Your task to perform on an android device: What's the speed of light? Image 0: 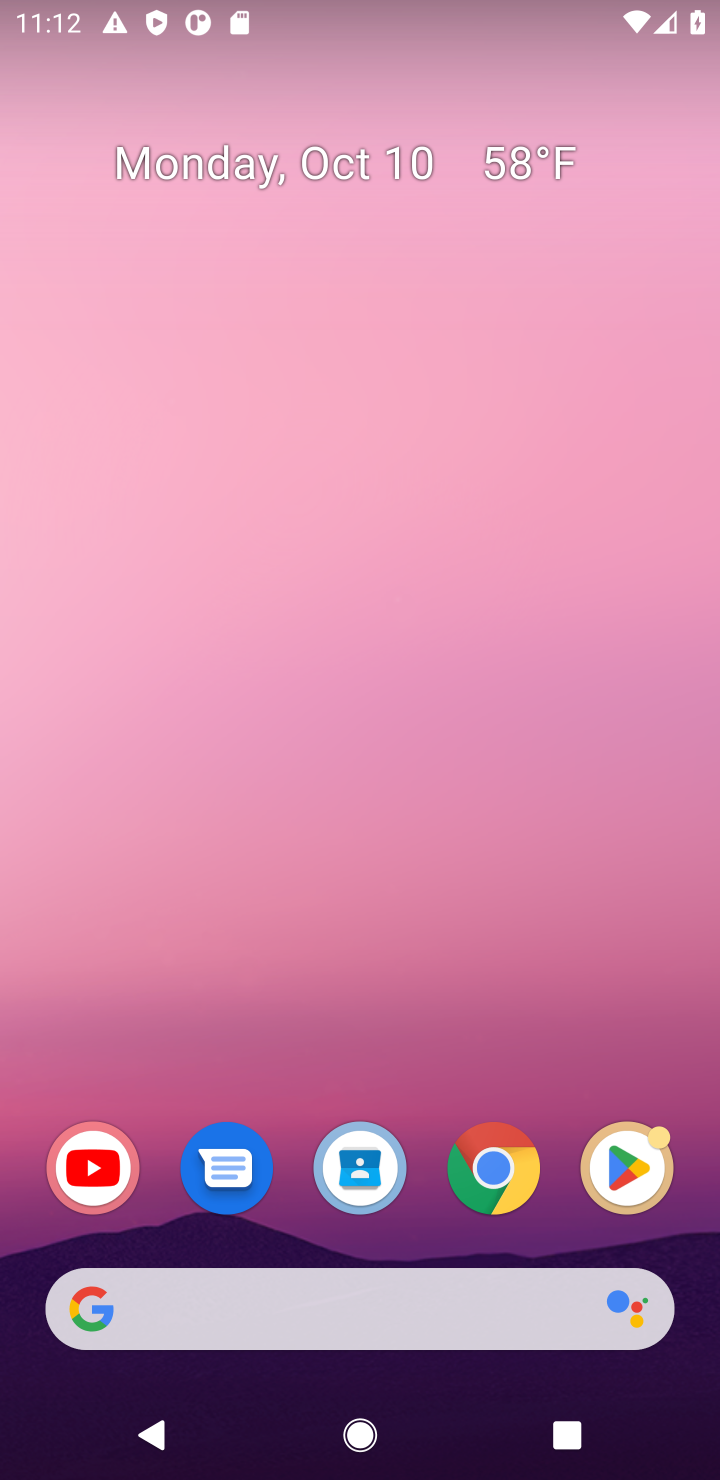
Step 0: click (358, 1296)
Your task to perform on an android device: What's the speed of light? Image 1: 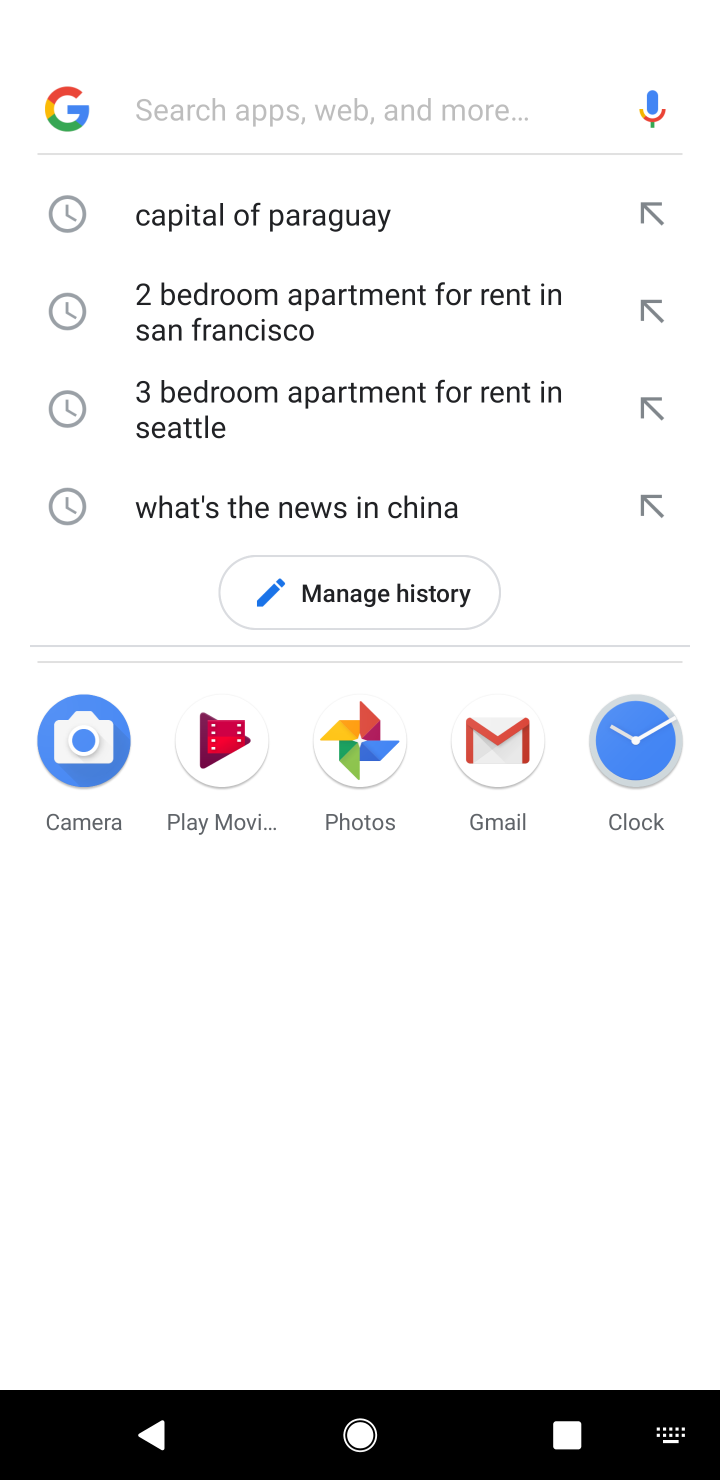
Step 1: drag from (269, 1444) to (702, 1410)
Your task to perform on an android device: What's the speed of light? Image 2: 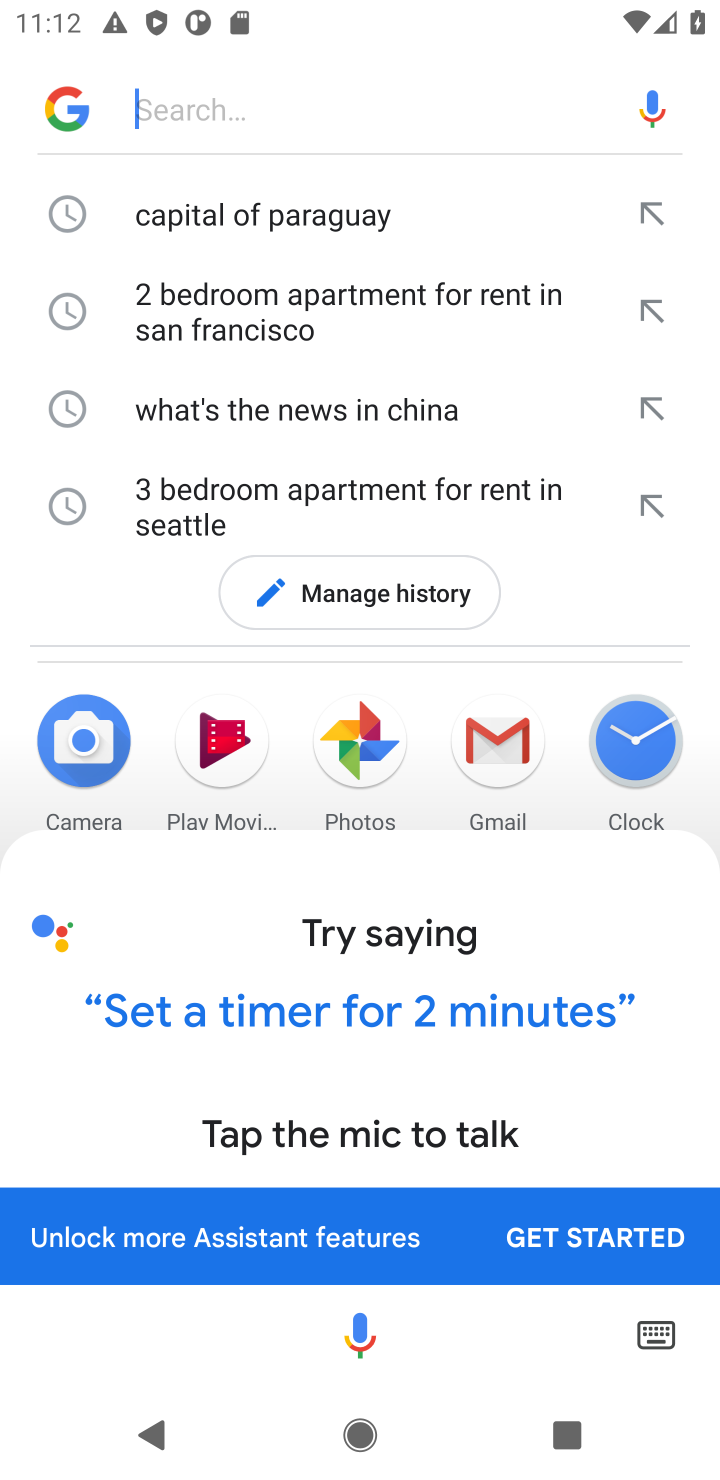
Step 2: type "speed of light"
Your task to perform on an android device: What's the speed of light? Image 3: 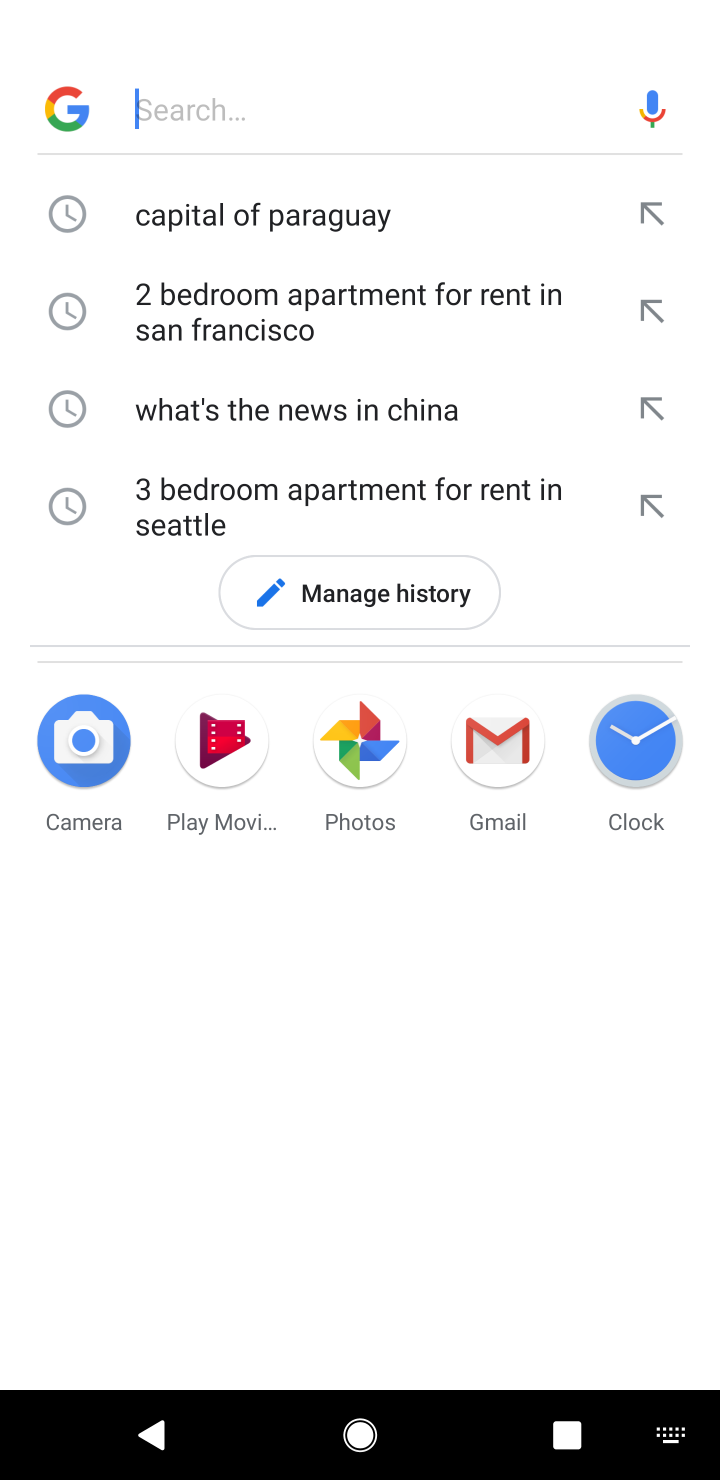
Step 3: click (395, 133)
Your task to perform on an android device: What's the speed of light? Image 4: 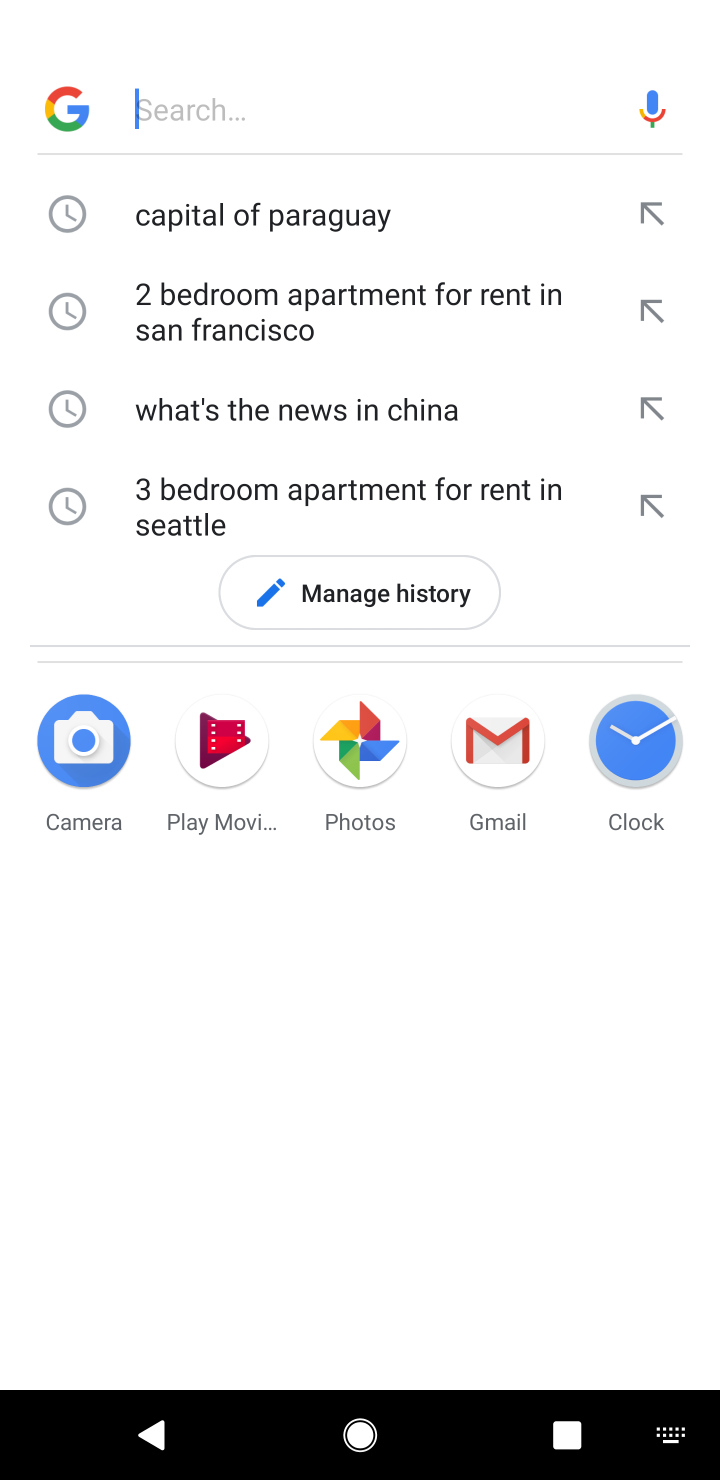
Step 4: type "speed of light"
Your task to perform on an android device: What's the speed of light? Image 5: 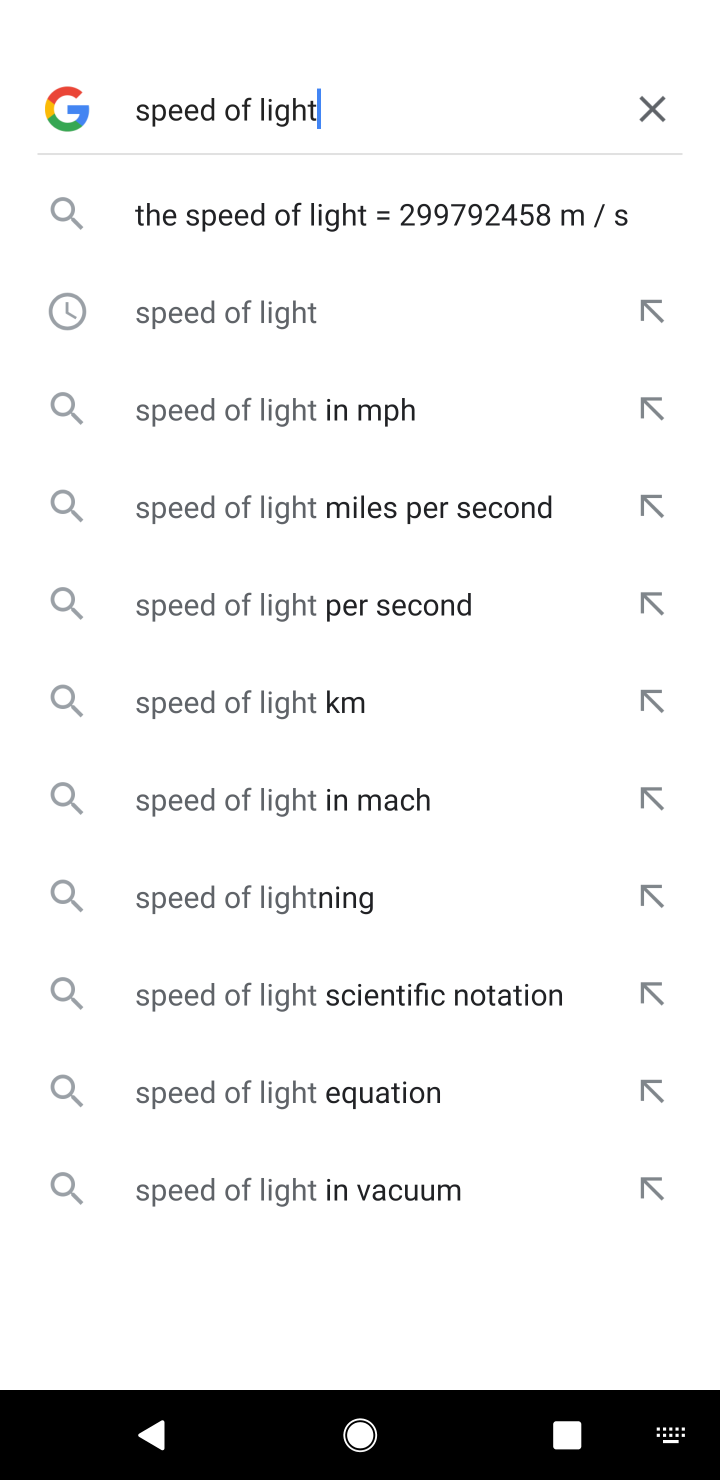
Step 5: type ""
Your task to perform on an android device: What's the speed of light? Image 6: 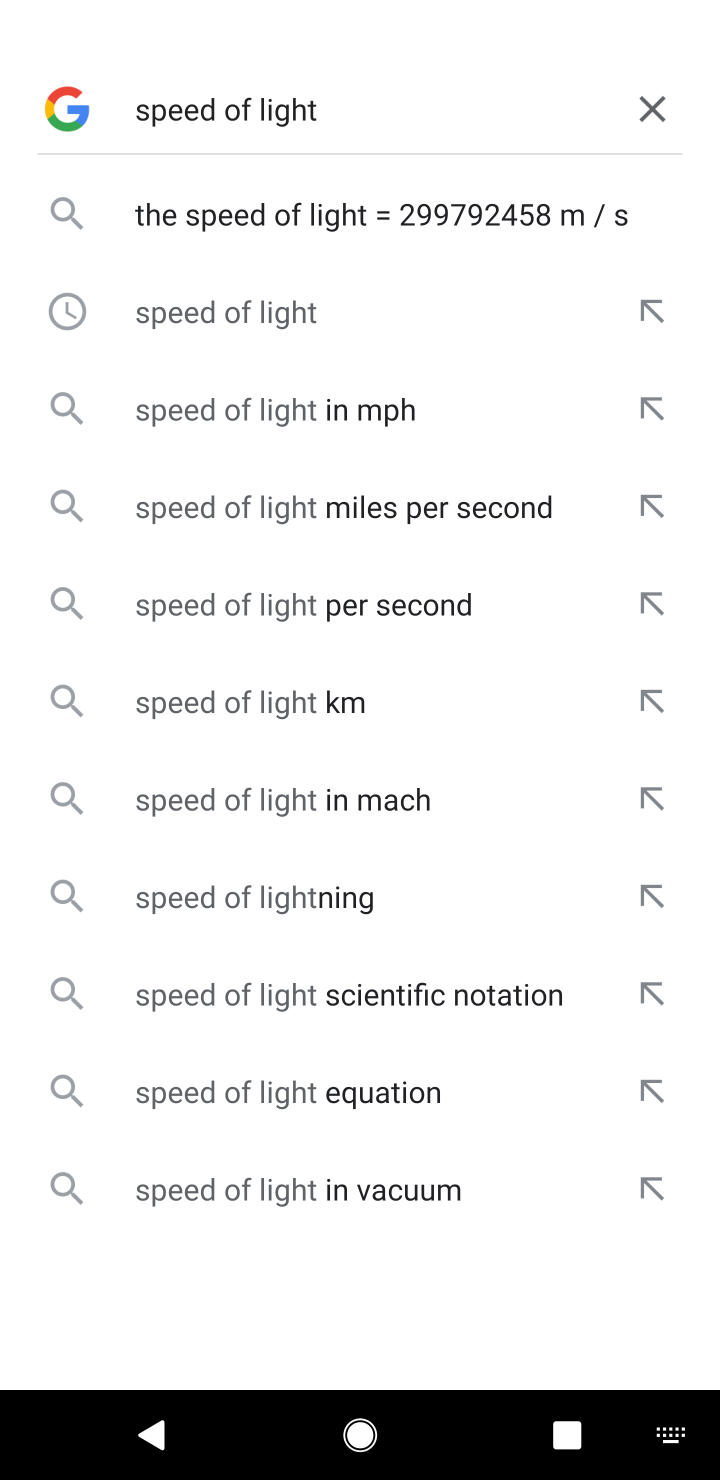
Step 6: click (304, 228)
Your task to perform on an android device: What's the speed of light? Image 7: 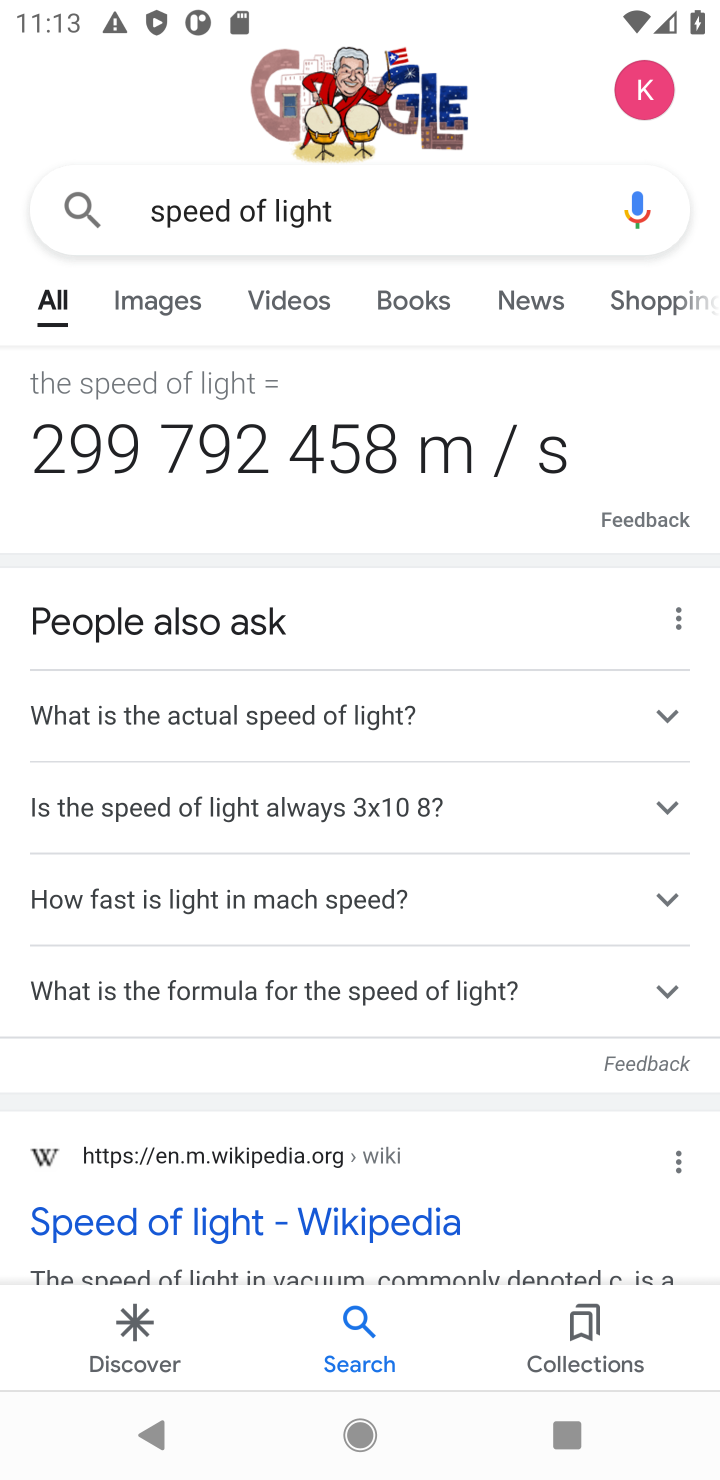
Step 7: task complete